Your task to perform on an android device: Open the phone app and click the voicemail tab. Image 0: 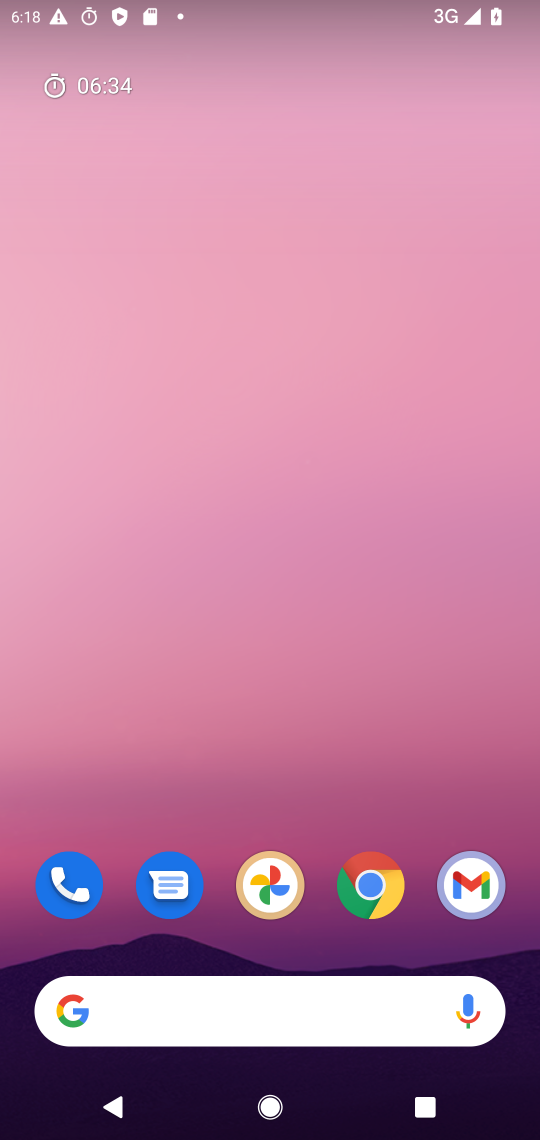
Step 0: drag from (250, 853) to (268, 51)
Your task to perform on an android device: Open the phone app and click the voicemail tab. Image 1: 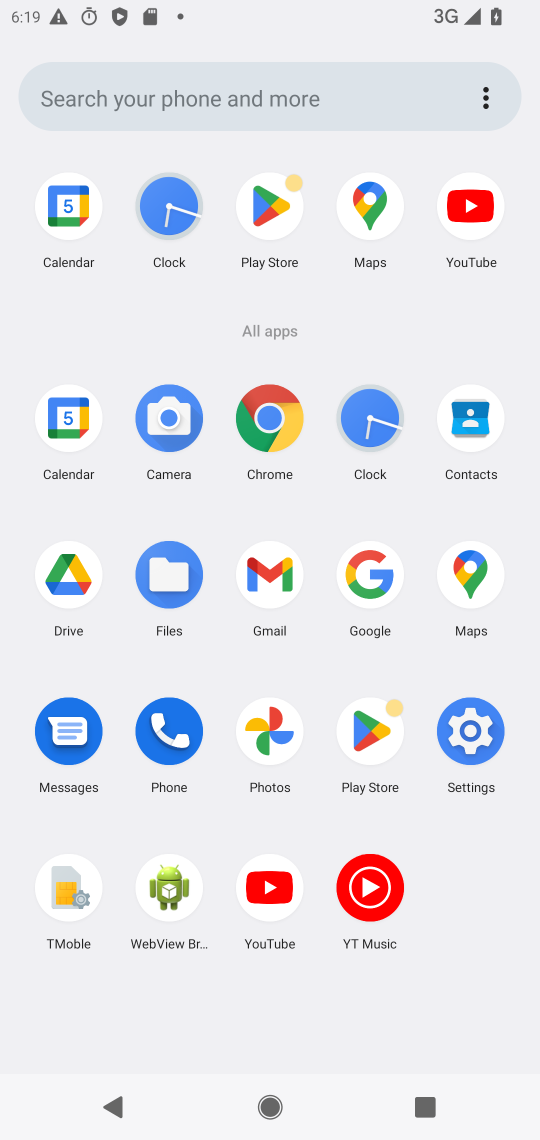
Step 1: click (156, 753)
Your task to perform on an android device: Open the phone app and click the voicemail tab. Image 2: 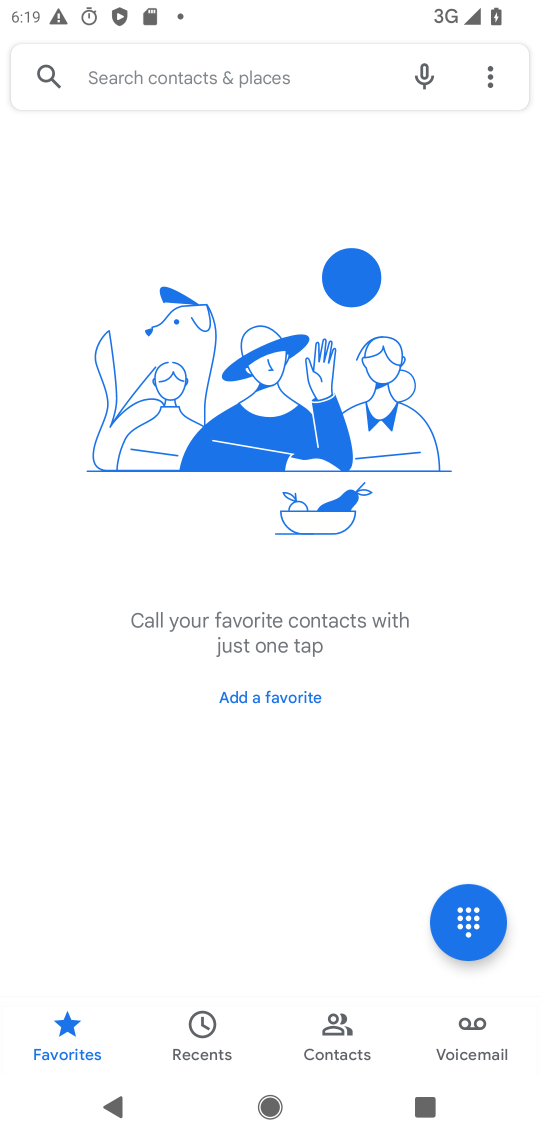
Step 2: click (452, 1044)
Your task to perform on an android device: Open the phone app and click the voicemail tab. Image 3: 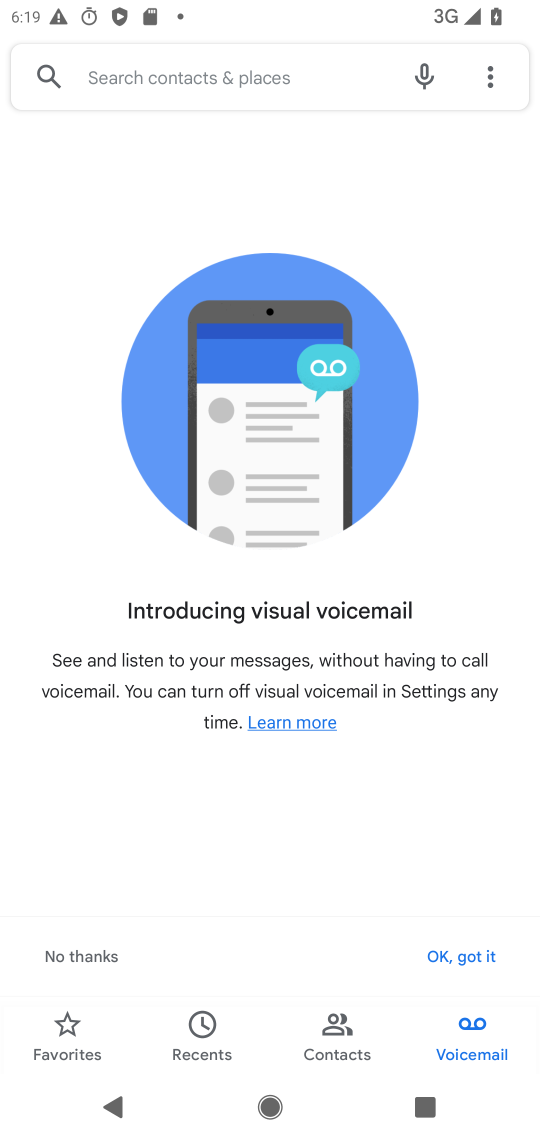
Step 3: task complete